Your task to perform on an android device: Turn off the flashlight Image 0: 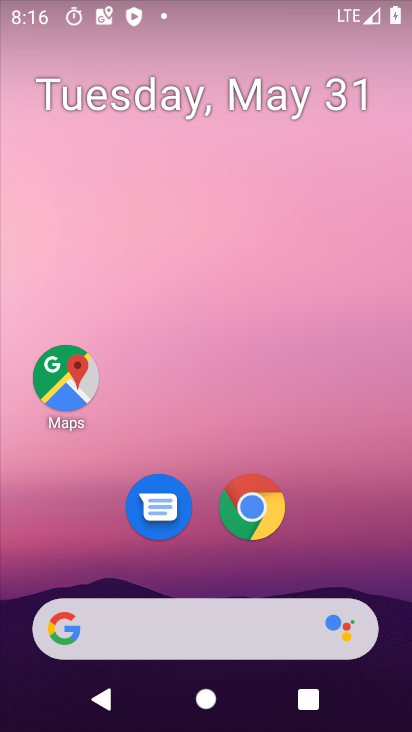
Step 0: drag from (49, 598) to (330, 162)
Your task to perform on an android device: Turn off the flashlight Image 1: 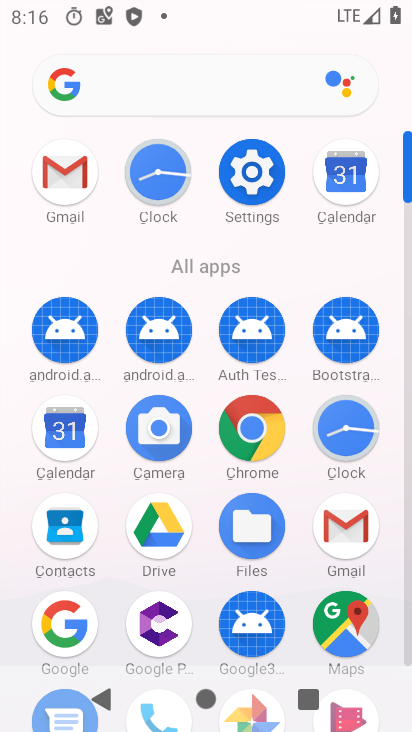
Step 1: click (258, 196)
Your task to perform on an android device: Turn off the flashlight Image 2: 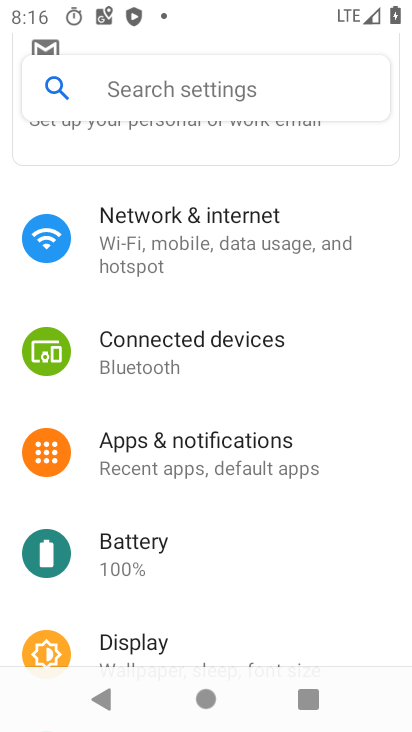
Step 2: task complete